Your task to perform on an android device: Go to calendar. Show me events next week Image 0: 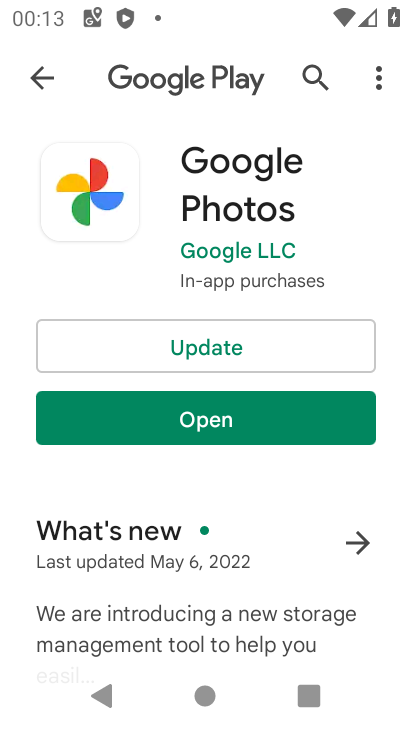
Step 0: press home button
Your task to perform on an android device: Go to calendar. Show me events next week Image 1: 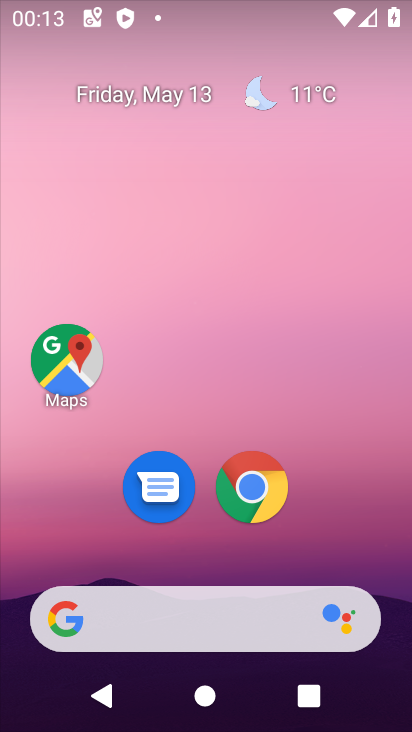
Step 1: click (161, 100)
Your task to perform on an android device: Go to calendar. Show me events next week Image 2: 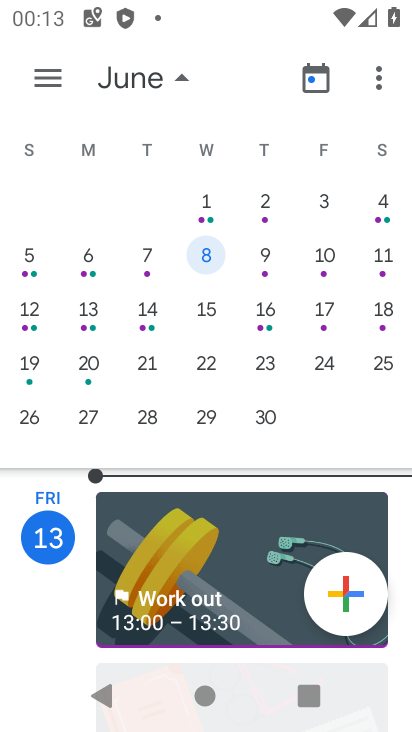
Step 2: click (164, 66)
Your task to perform on an android device: Go to calendar. Show me events next week Image 3: 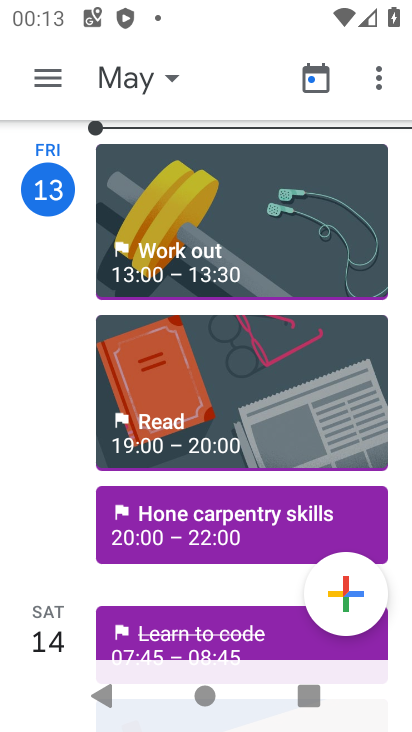
Step 3: click (164, 66)
Your task to perform on an android device: Go to calendar. Show me events next week Image 4: 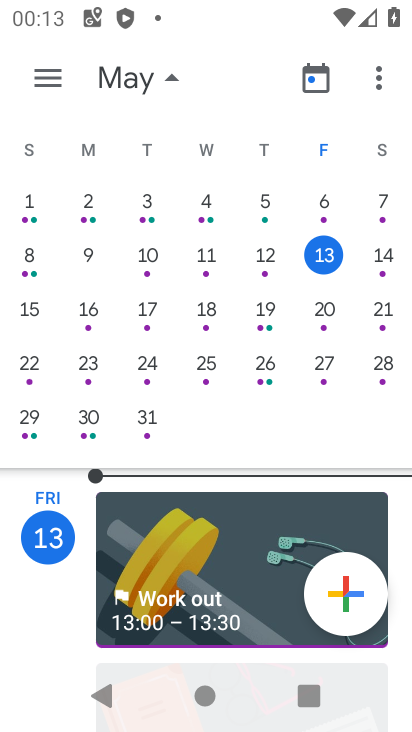
Step 4: click (327, 303)
Your task to perform on an android device: Go to calendar. Show me events next week Image 5: 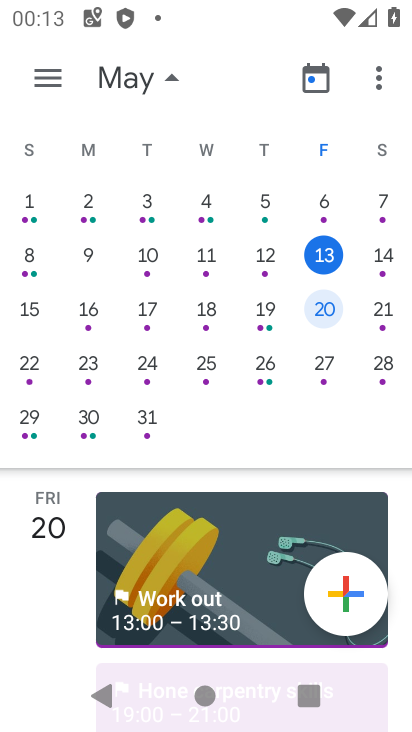
Step 5: task complete